Your task to perform on an android device: Go to ESPN.com Image 0: 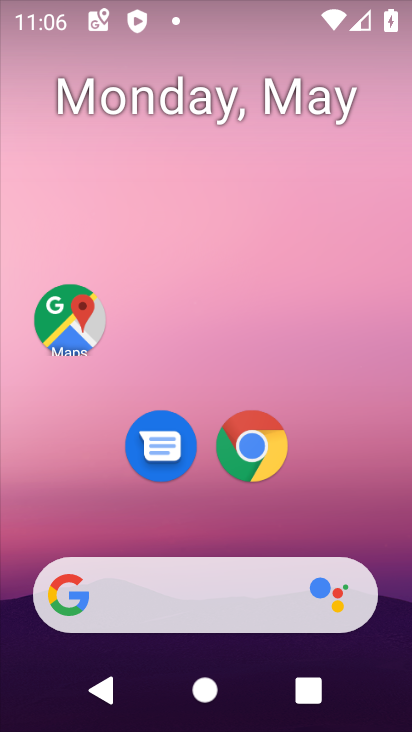
Step 0: drag from (339, 476) to (196, 2)
Your task to perform on an android device: Go to ESPN.com Image 1: 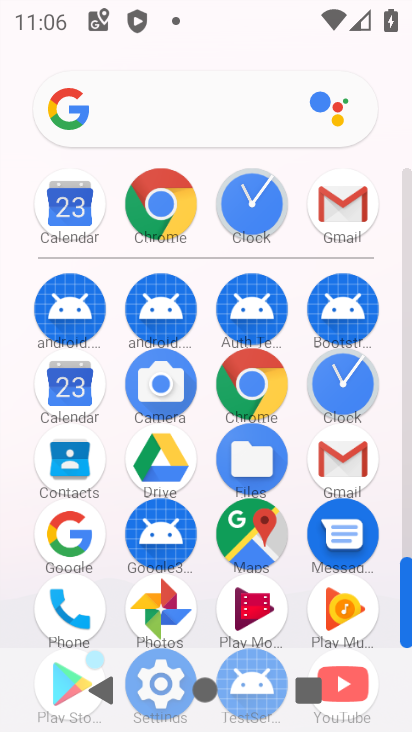
Step 1: click (166, 227)
Your task to perform on an android device: Go to ESPN.com Image 2: 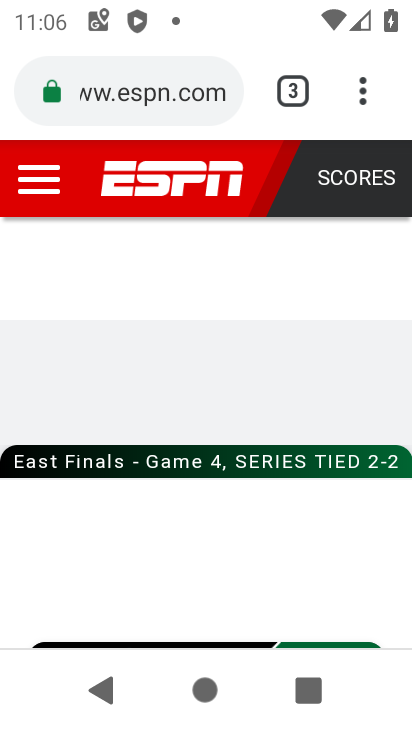
Step 2: task complete